Your task to perform on an android device: Search for "razer huntsman" on bestbuy.com, select the first entry, and add it to the cart. Image 0: 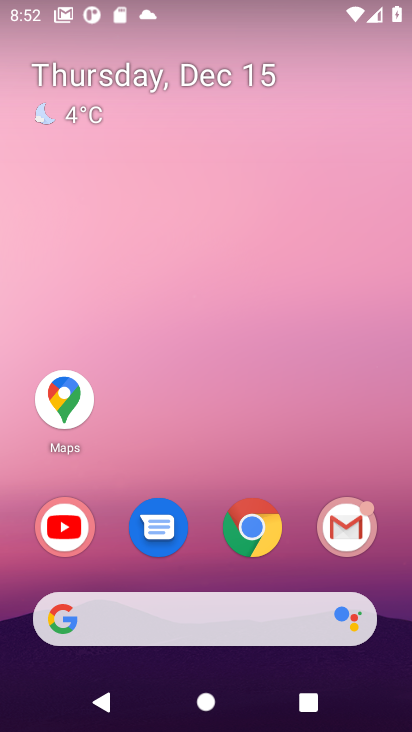
Step 0: click (270, 522)
Your task to perform on an android device: Search for "razer huntsman" on bestbuy.com, select the first entry, and add it to the cart. Image 1: 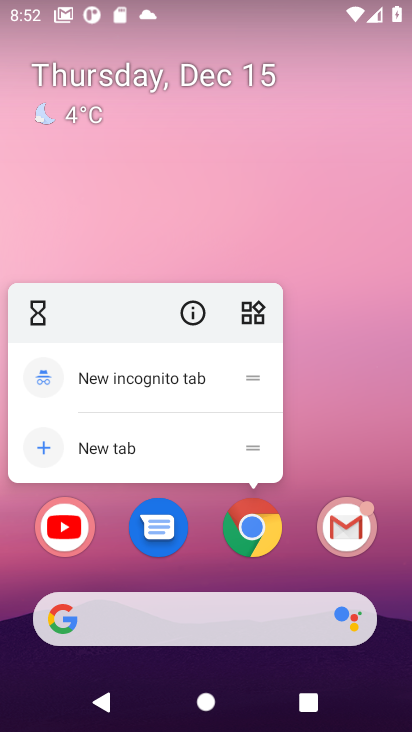
Step 1: click (270, 522)
Your task to perform on an android device: Search for "razer huntsman" on bestbuy.com, select the first entry, and add it to the cart. Image 2: 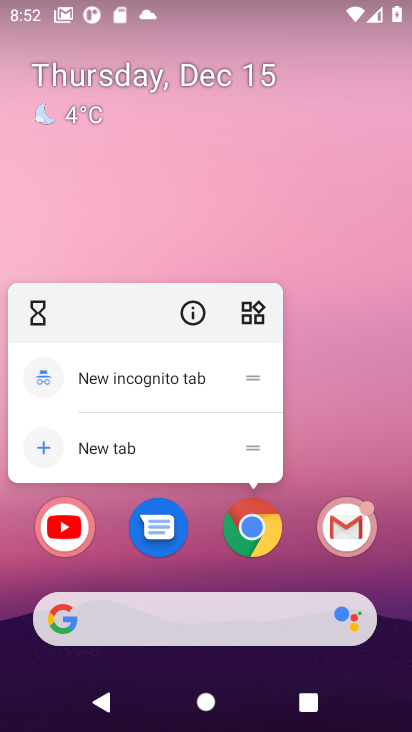
Step 2: click (270, 522)
Your task to perform on an android device: Search for "razer huntsman" on bestbuy.com, select the first entry, and add it to the cart. Image 3: 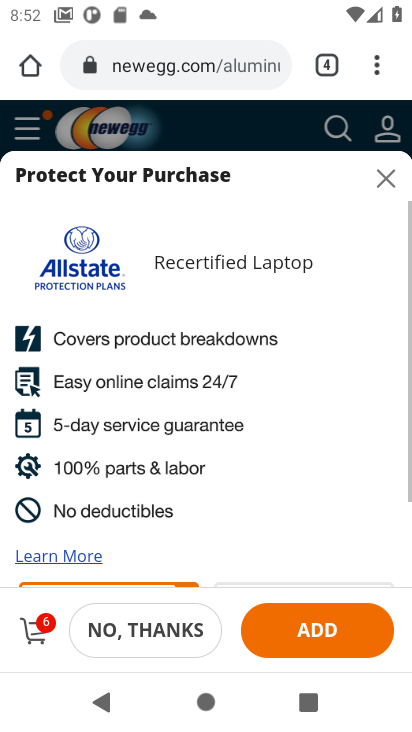
Step 3: click (219, 64)
Your task to perform on an android device: Search for "razer huntsman" on bestbuy.com, select the first entry, and add it to the cart. Image 4: 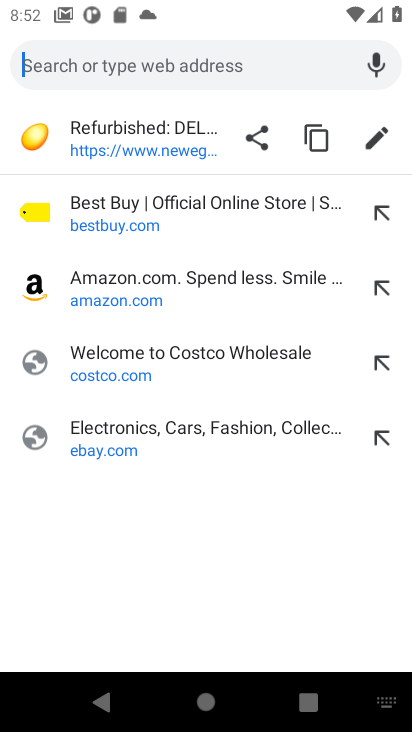
Step 4: click (178, 218)
Your task to perform on an android device: Search for "razer huntsman" on bestbuy.com, select the first entry, and add it to the cart. Image 5: 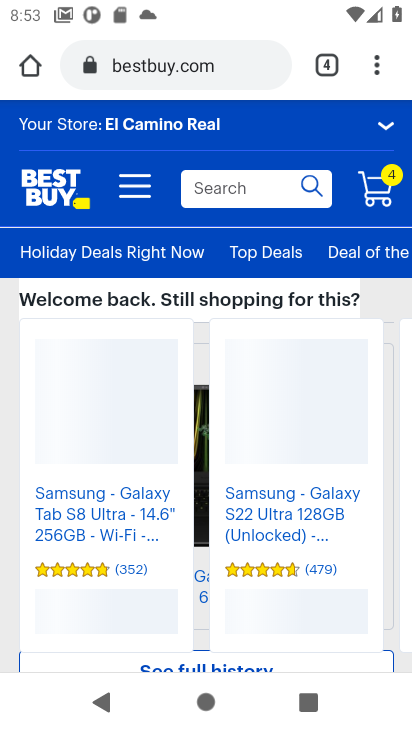
Step 5: task complete